Your task to perform on an android device: Open Reddit.com Image 0: 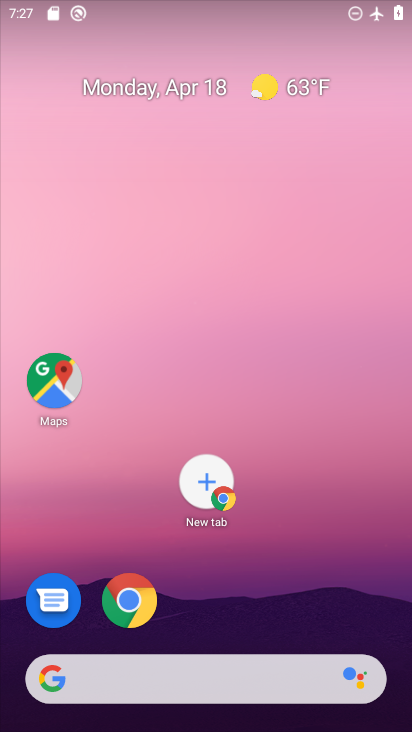
Step 0: click (123, 599)
Your task to perform on an android device: Open Reddit.com Image 1: 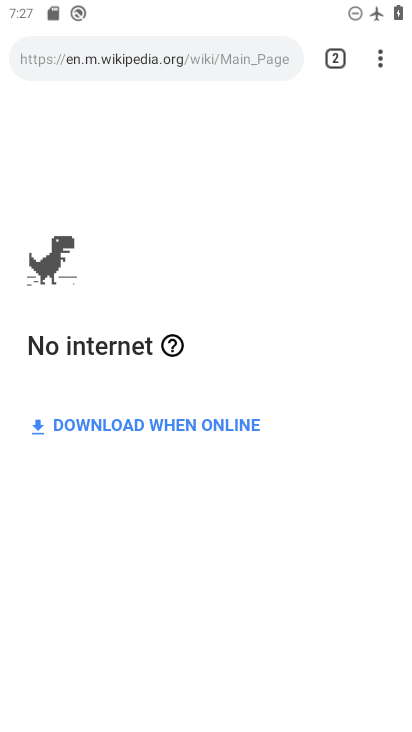
Step 1: task complete